Your task to perform on an android device: turn off sleep mode Image 0: 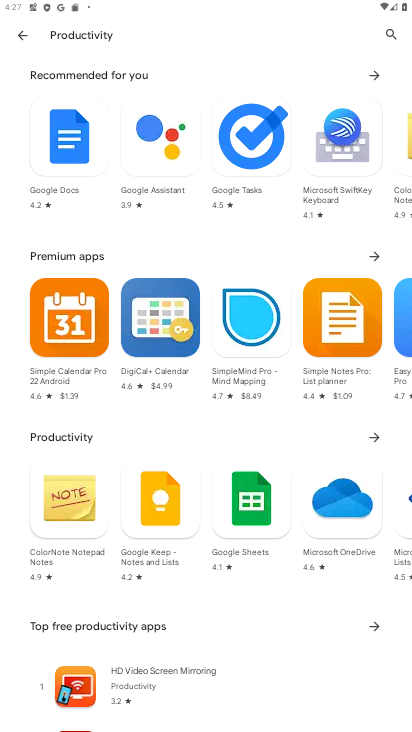
Step 0: press home button
Your task to perform on an android device: turn off sleep mode Image 1: 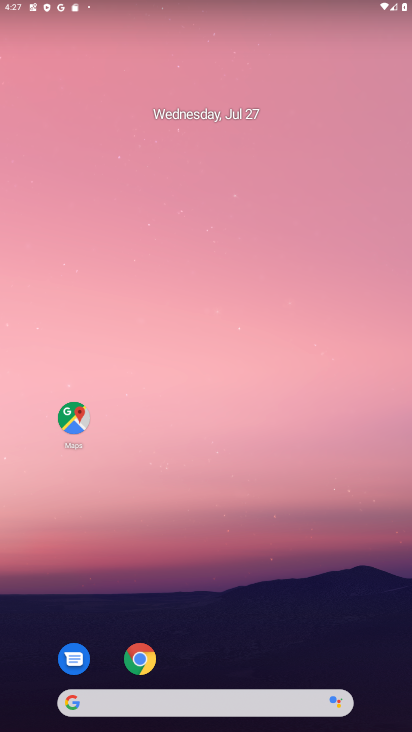
Step 1: drag from (273, 610) to (209, 229)
Your task to perform on an android device: turn off sleep mode Image 2: 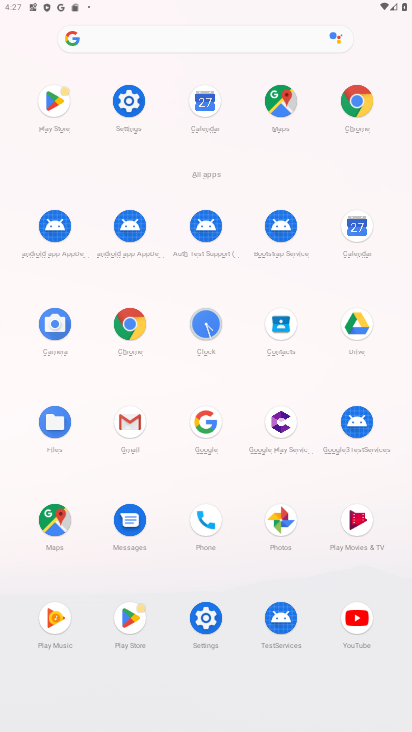
Step 2: click (132, 100)
Your task to perform on an android device: turn off sleep mode Image 3: 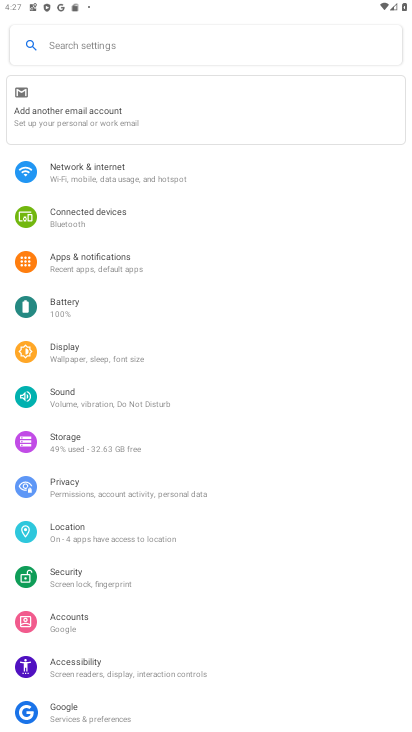
Step 3: click (113, 352)
Your task to perform on an android device: turn off sleep mode Image 4: 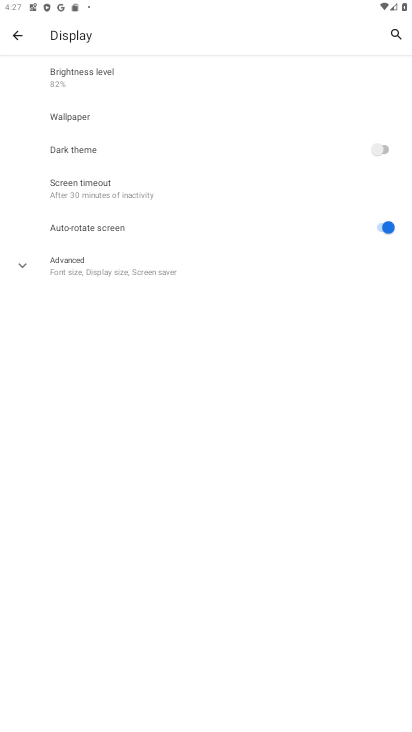
Step 4: click (163, 279)
Your task to perform on an android device: turn off sleep mode Image 5: 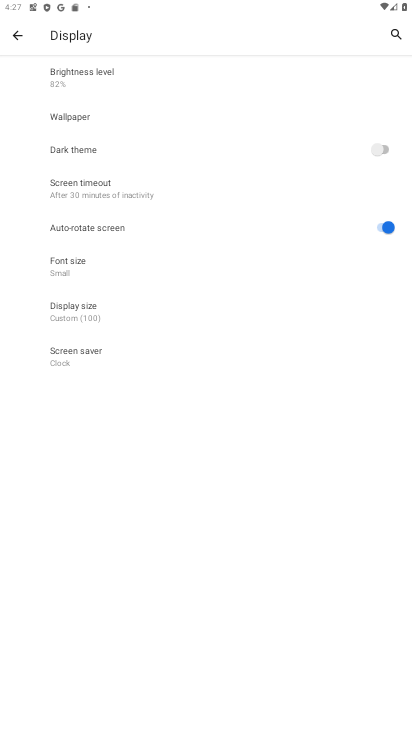
Step 5: task complete